Your task to perform on an android device: Turn on the flashlight Image 0: 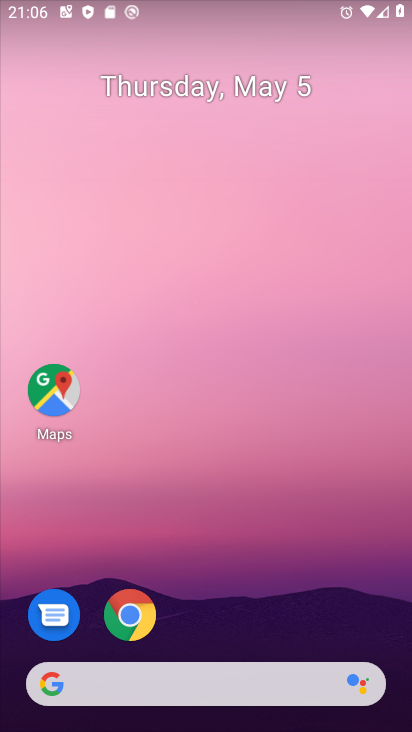
Step 0: drag from (233, 639) to (300, 270)
Your task to perform on an android device: Turn on the flashlight Image 1: 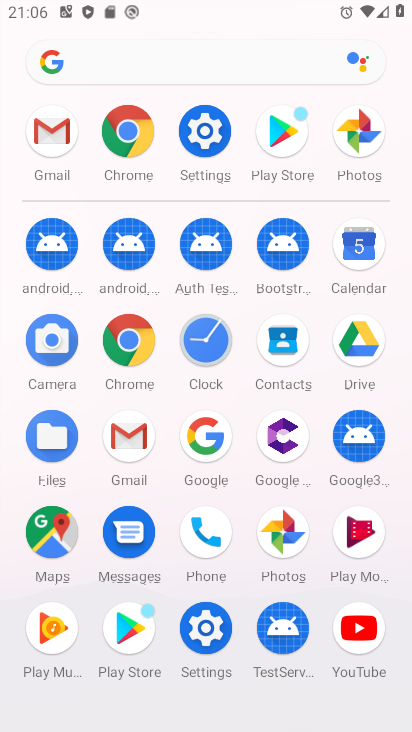
Step 1: click (217, 135)
Your task to perform on an android device: Turn on the flashlight Image 2: 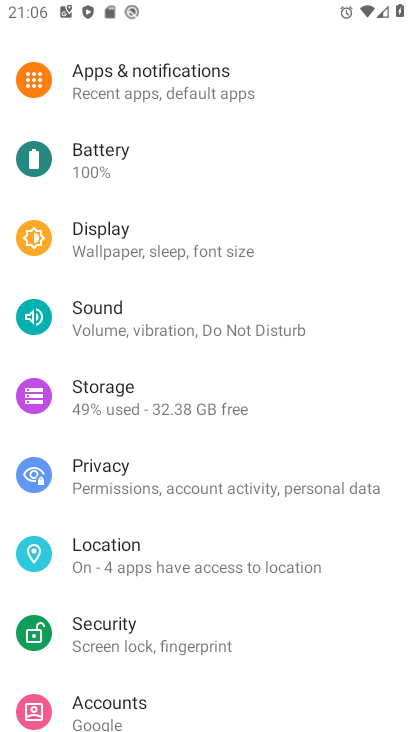
Step 2: drag from (221, 189) to (213, 322)
Your task to perform on an android device: Turn on the flashlight Image 3: 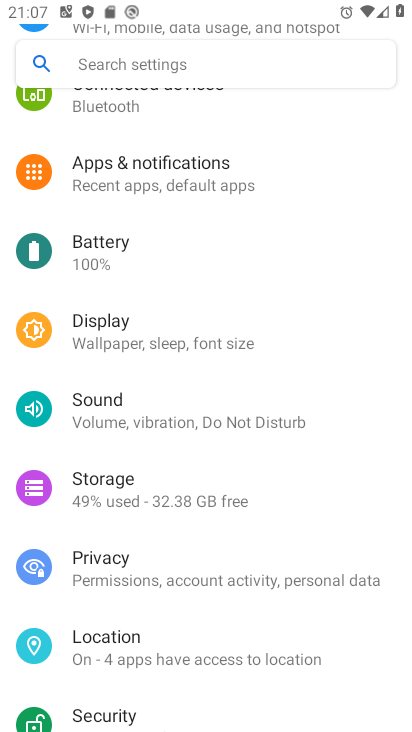
Step 3: click (199, 66)
Your task to perform on an android device: Turn on the flashlight Image 4: 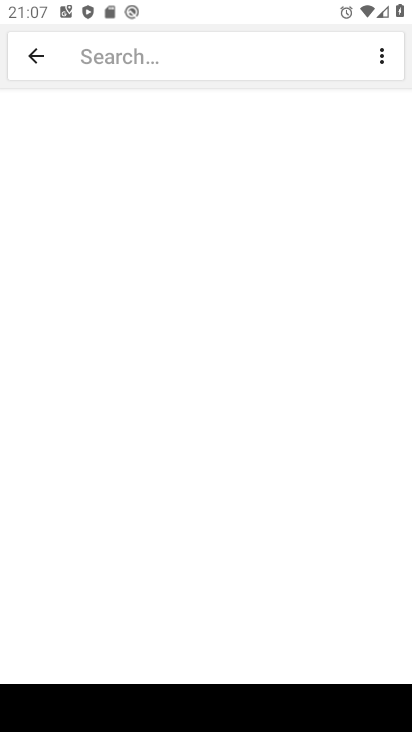
Step 4: type "flashlight"
Your task to perform on an android device: Turn on the flashlight Image 5: 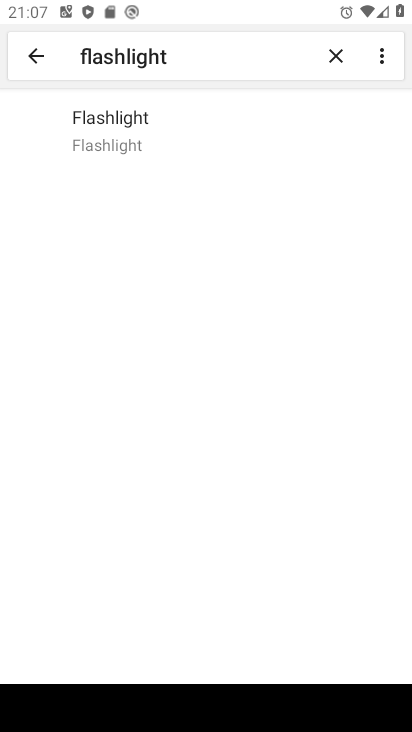
Step 5: click (125, 120)
Your task to perform on an android device: Turn on the flashlight Image 6: 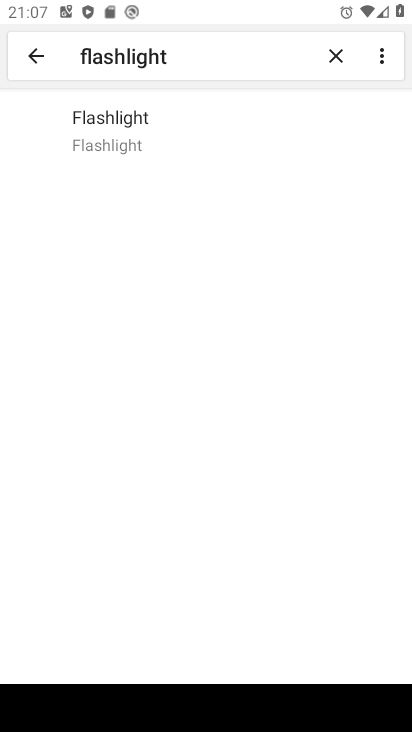
Step 6: click (131, 134)
Your task to perform on an android device: Turn on the flashlight Image 7: 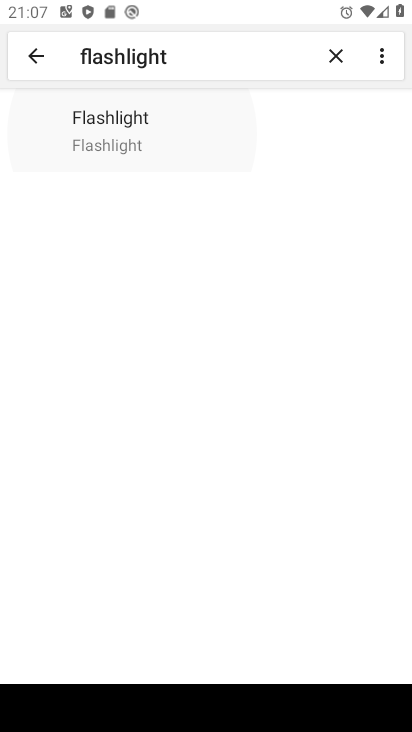
Step 7: click (131, 134)
Your task to perform on an android device: Turn on the flashlight Image 8: 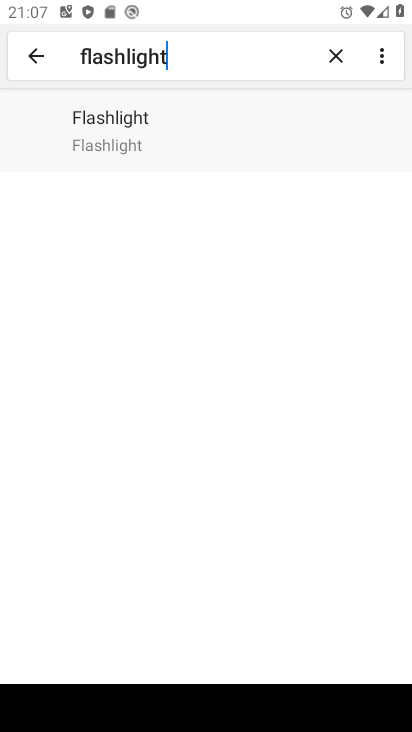
Step 8: click (131, 133)
Your task to perform on an android device: Turn on the flashlight Image 9: 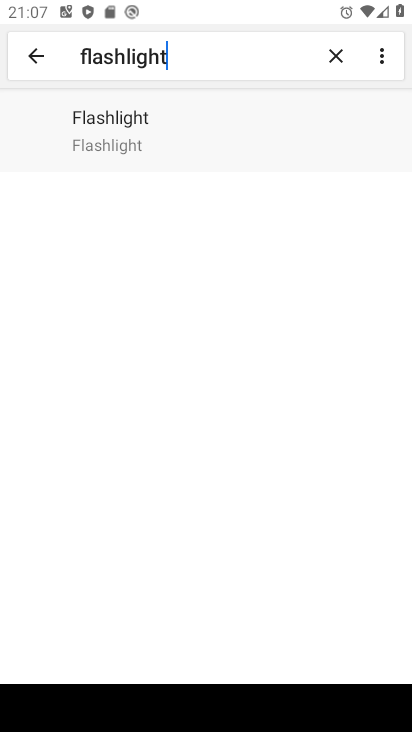
Step 9: click (131, 132)
Your task to perform on an android device: Turn on the flashlight Image 10: 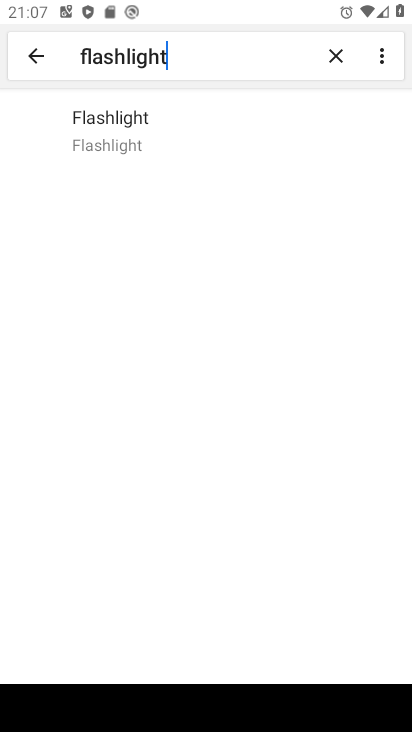
Step 10: task complete